Your task to perform on an android device: Play the last video I watched on Youtube Image 0: 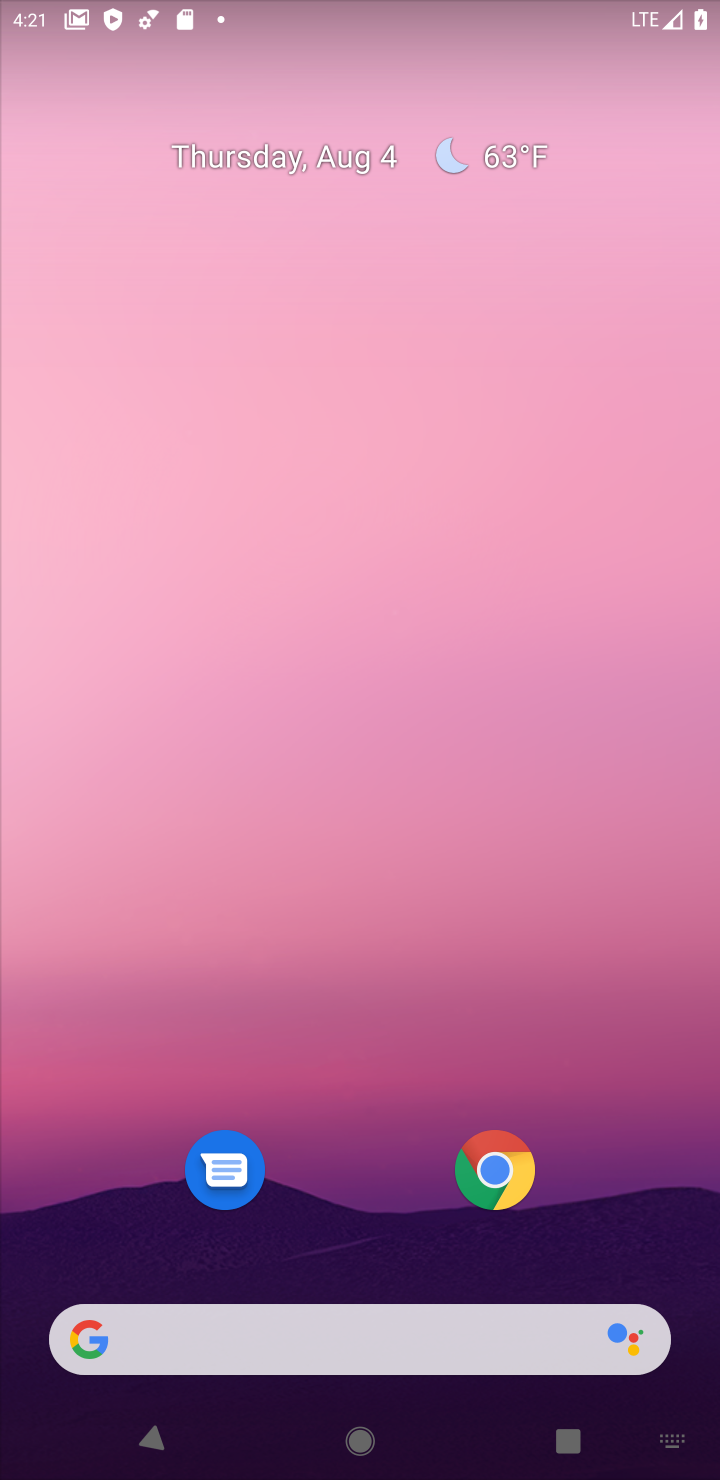
Step 0: drag from (599, 790) to (487, 65)
Your task to perform on an android device: Play the last video I watched on Youtube Image 1: 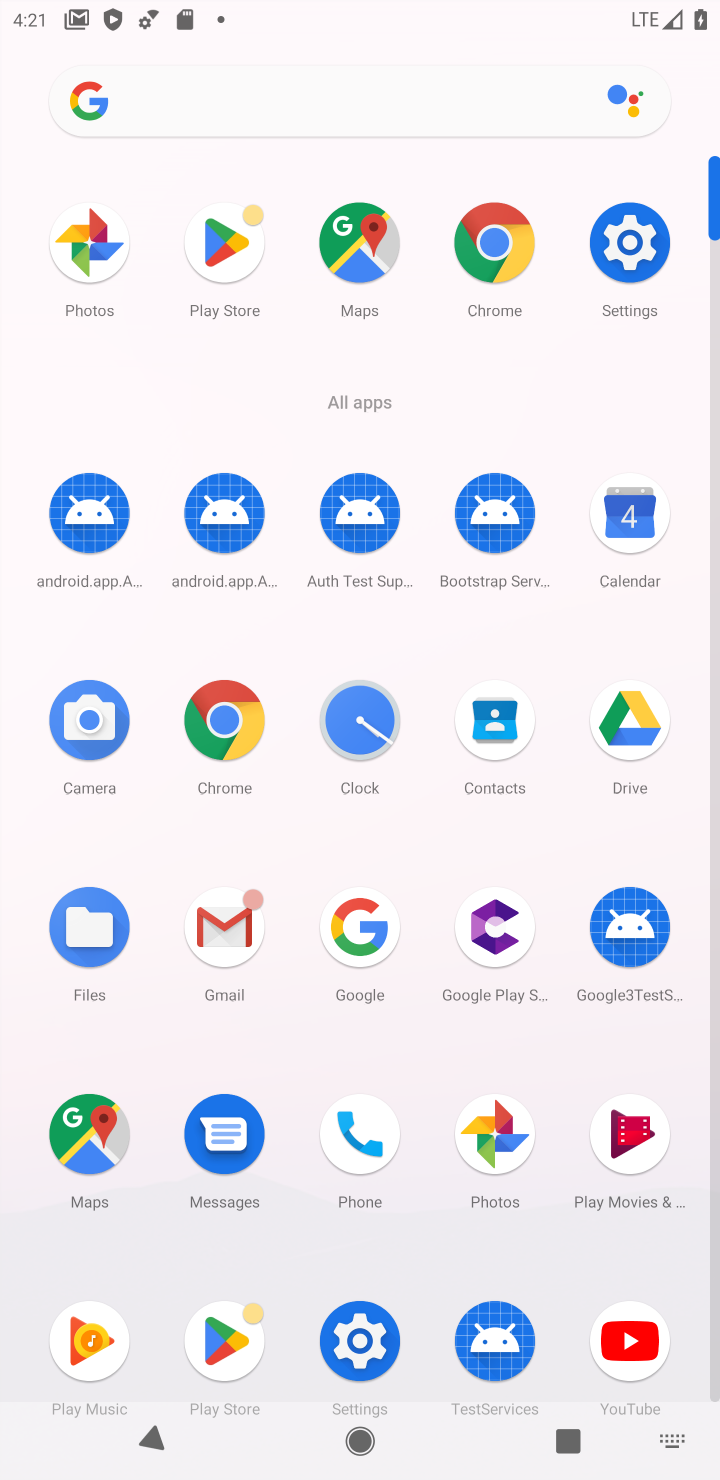
Step 1: click (636, 1325)
Your task to perform on an android device: Play the last video I watched on Youtube Image 2: 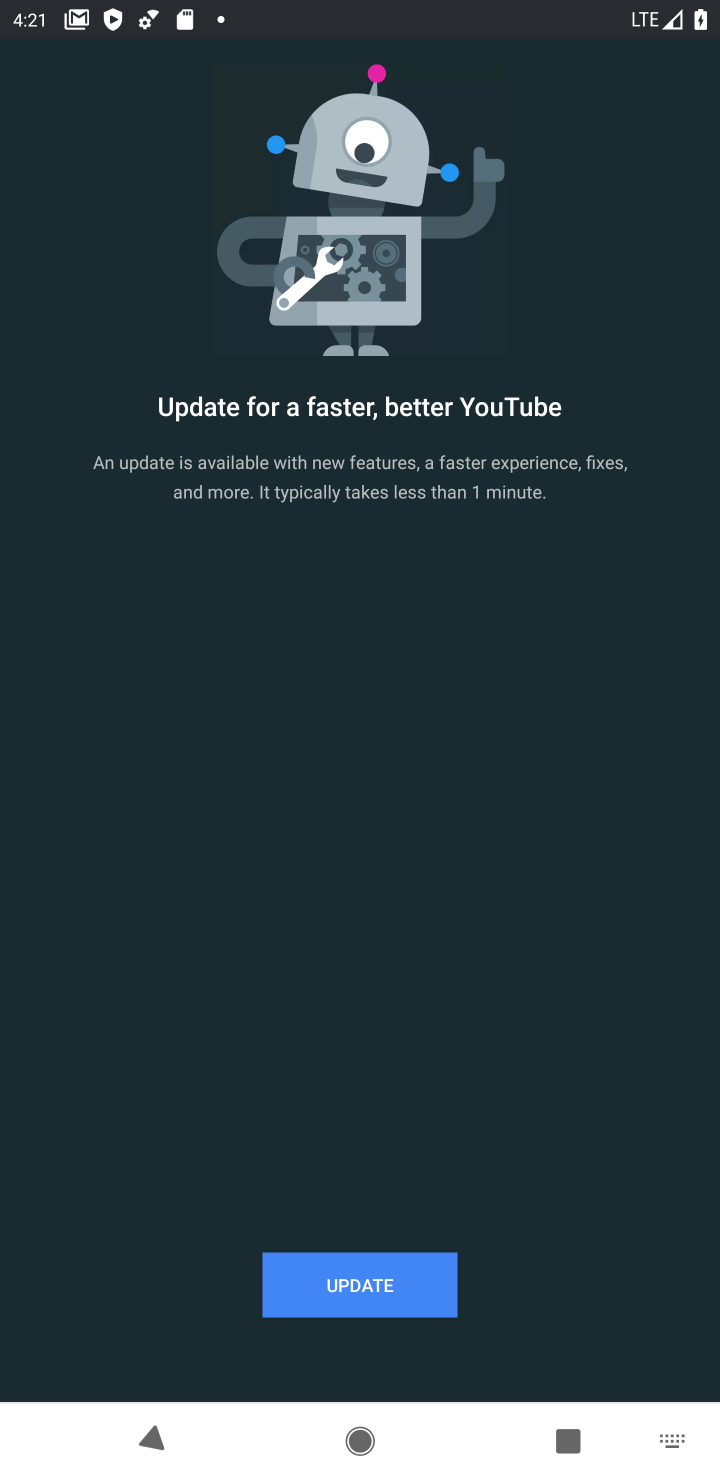
Step 2: click (402, 1298)
Your task to perform on an android device: Play the last video I watched on Youtube Image 3: 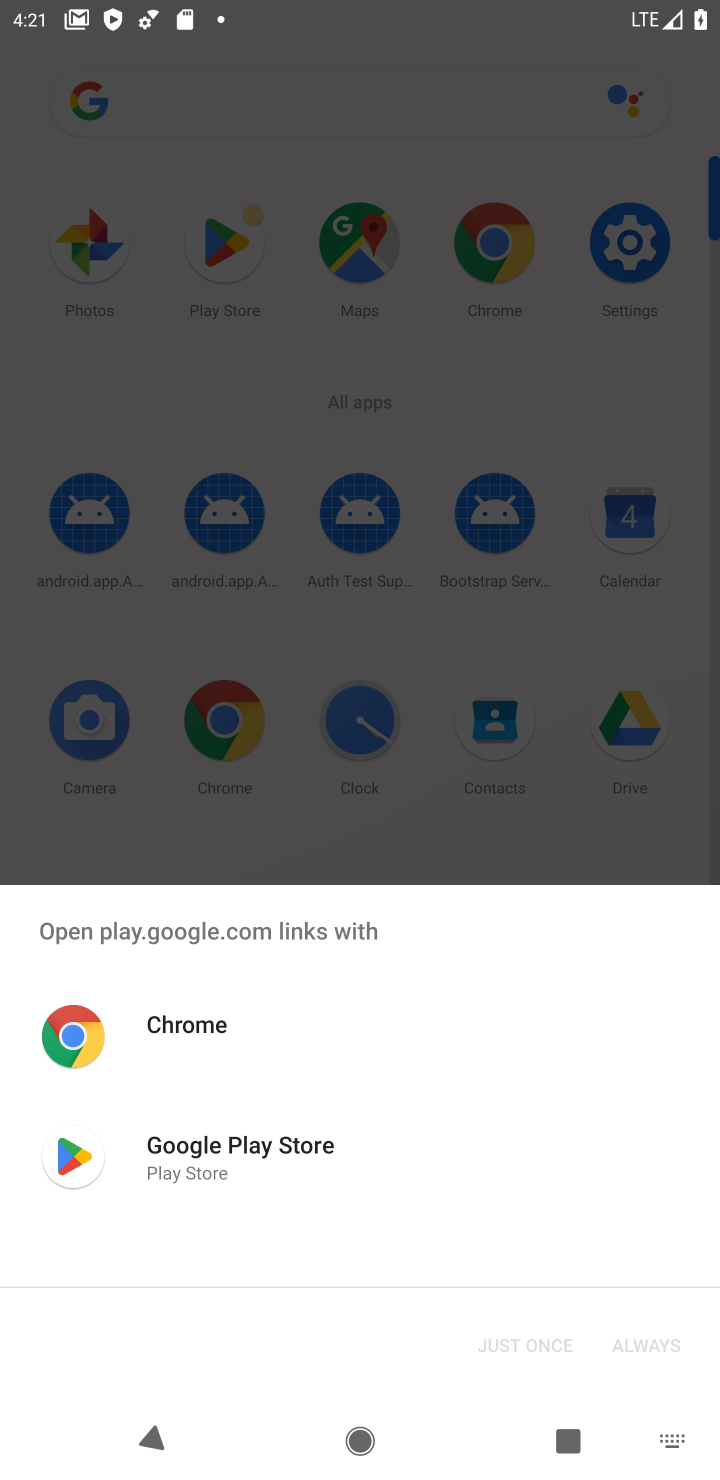
Step 3: click (381, 1129)
Your task to perform on an android device: Play the last video I watched on Youtube Image 4: 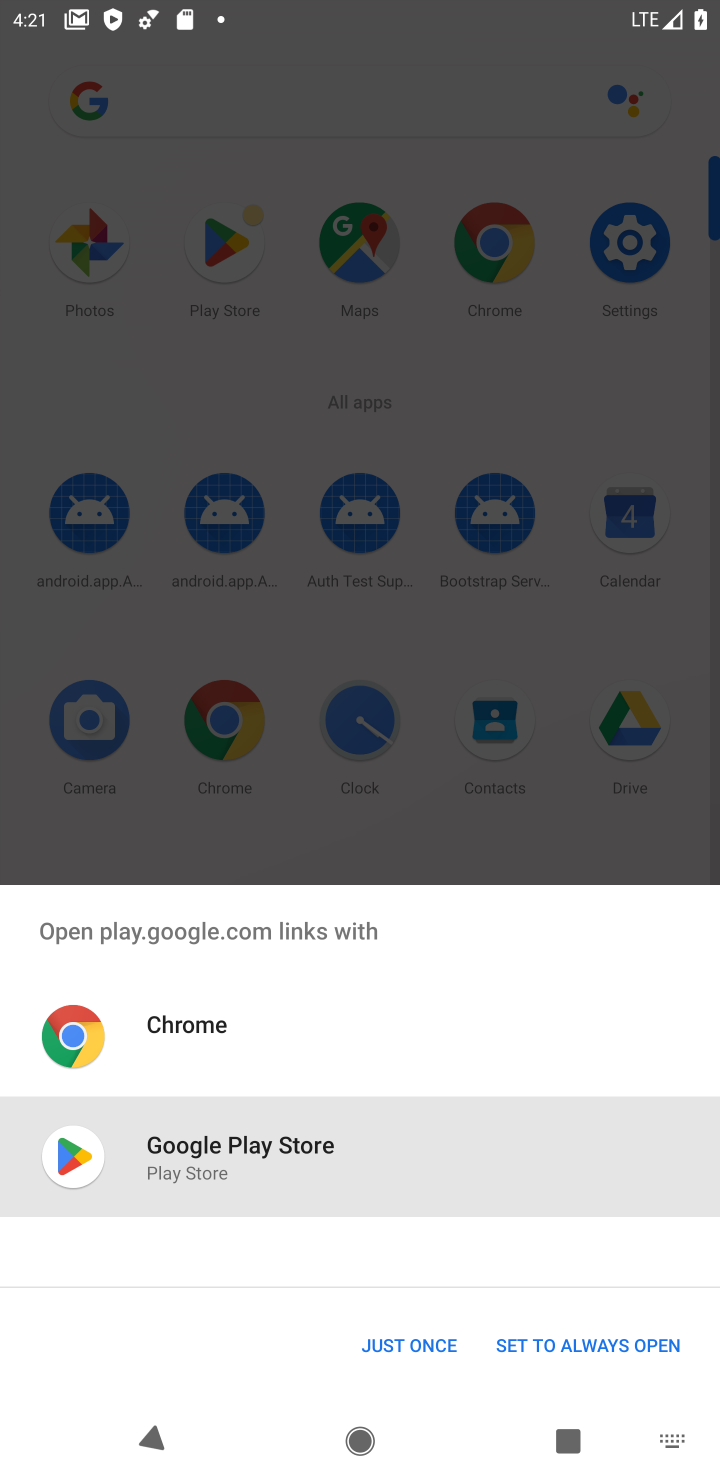
Step 4: click (402, 1353)
Your task to perform on an android device: Play the last video I watched on Youtube Image 5: 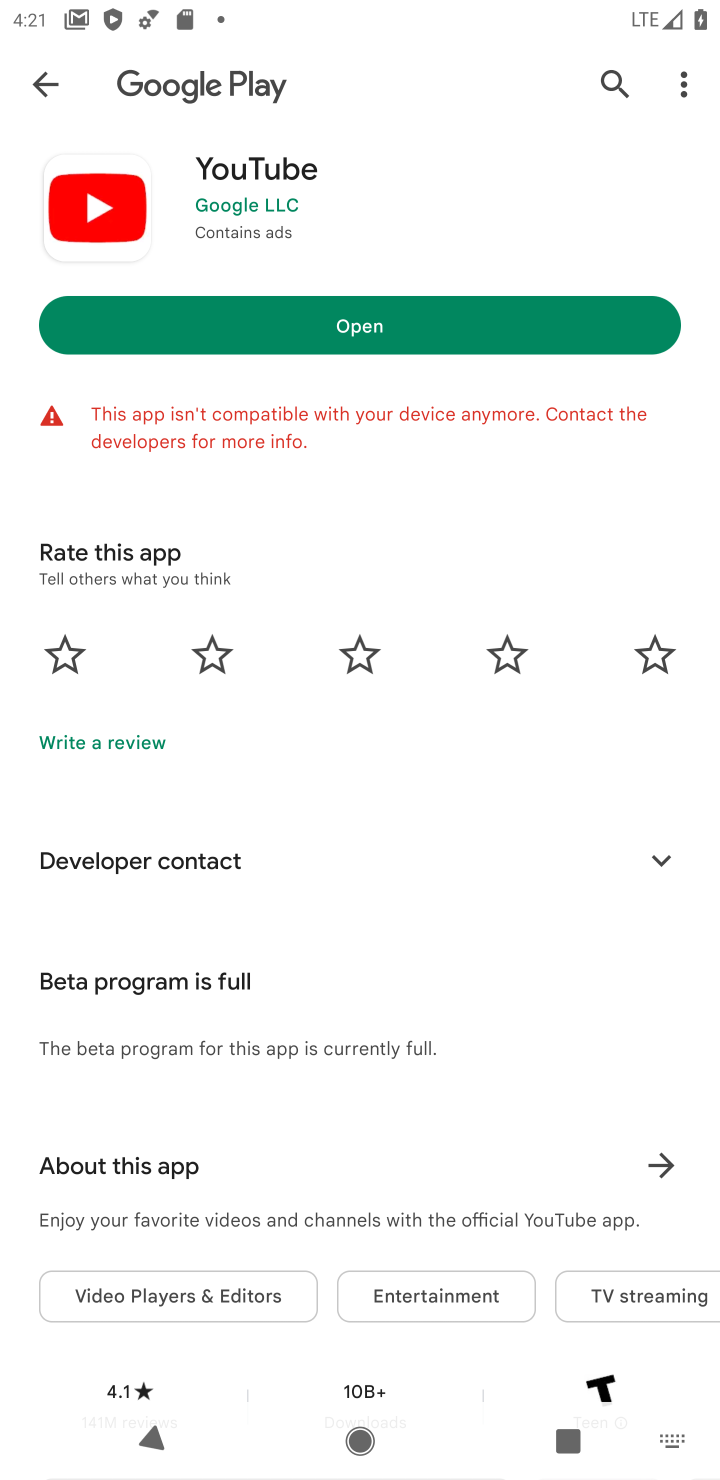
Step 5: click (388, 338)
Your task to perform on an android device: Play the last video I watched on Youtube Image 6: 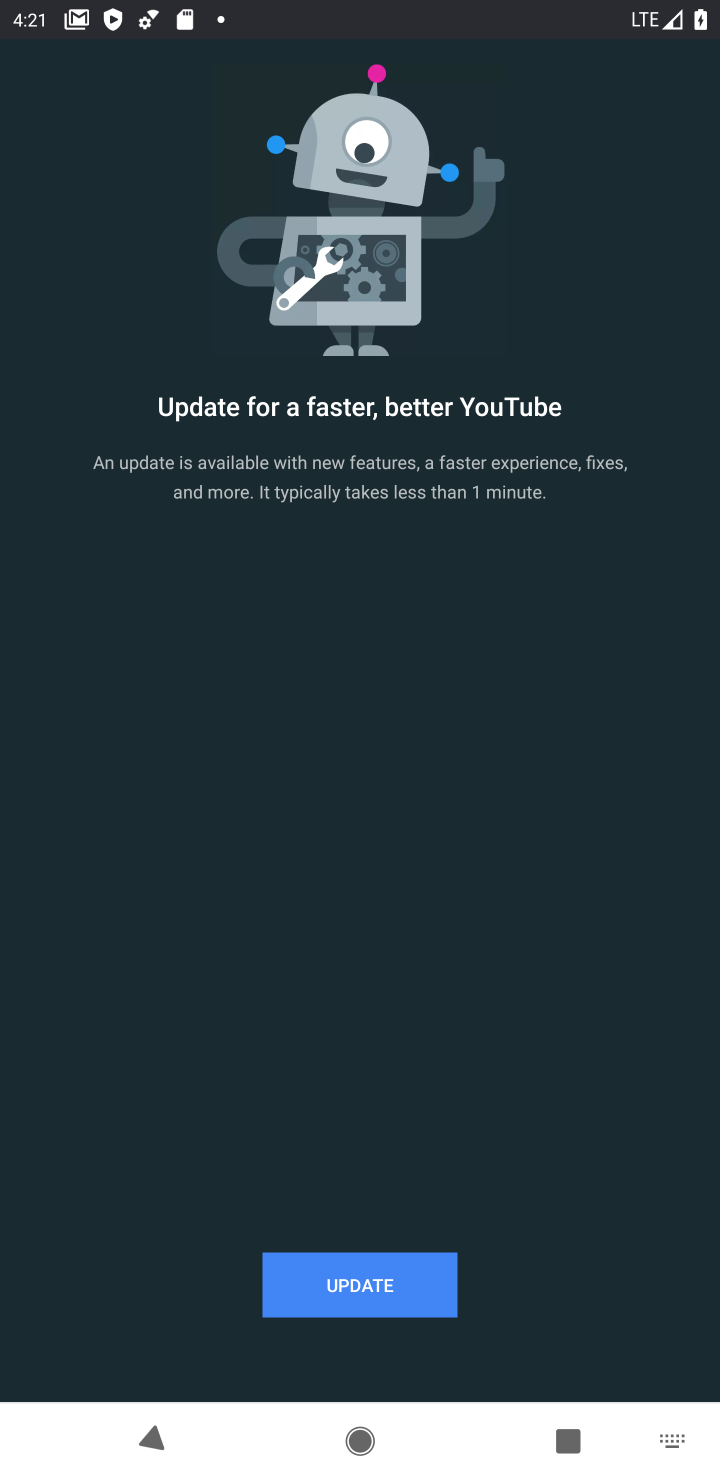
Step 6: task complete